Your task to perform on an android device: set the timer Image 0: 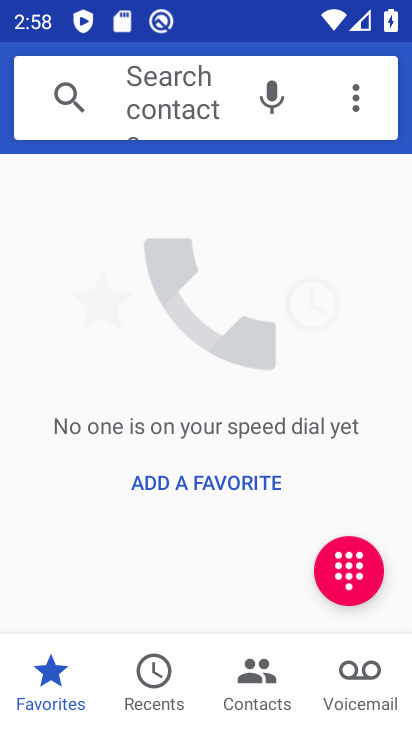
Step 0: press home button
Your task to perform on an android device: set the timer Image 1: 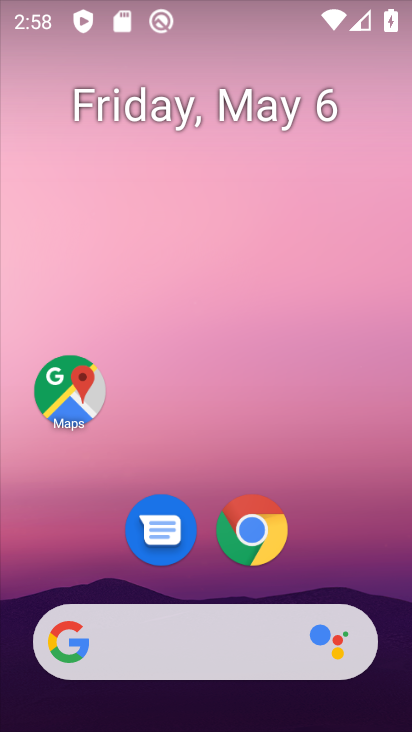
Step 1: drag from (210, 578) to (251, 141)
Your task to perform on an android device: set the timer Image 2: 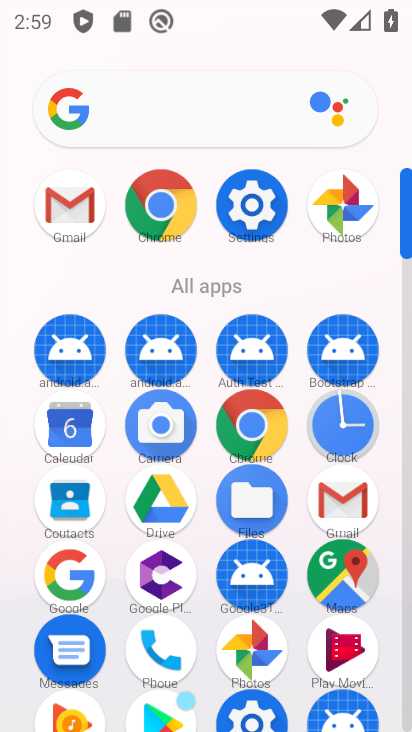
Step 2: drag from (209, 495) to (226, 225)
Your task to perform on an android device: set the timer Image 3: 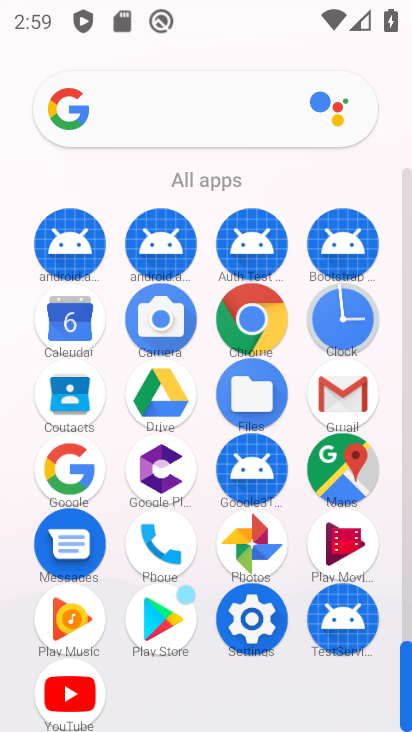
Step 3: click (355, 342)
Your task to perform on an android device: set the timer Image 4: 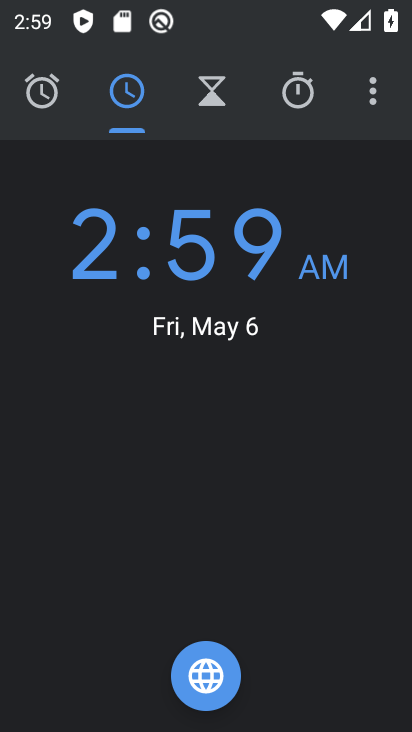
Step 4: click (221, 95)
Your task to perform on an android device: set the timer Image 5: 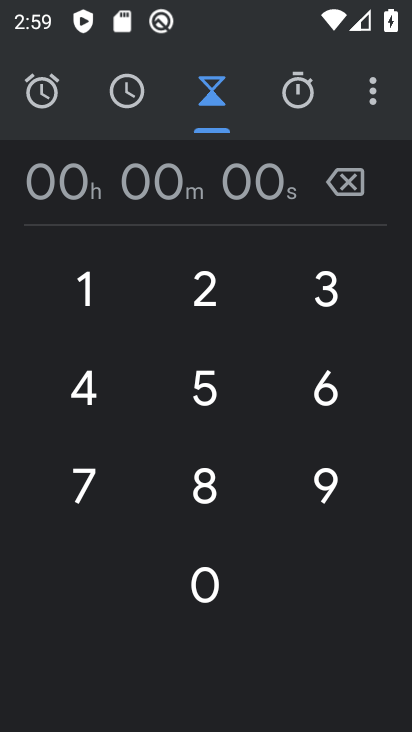
Step 5: click (196, 290)
Your task to perform on an android device: set the timer Image 6: 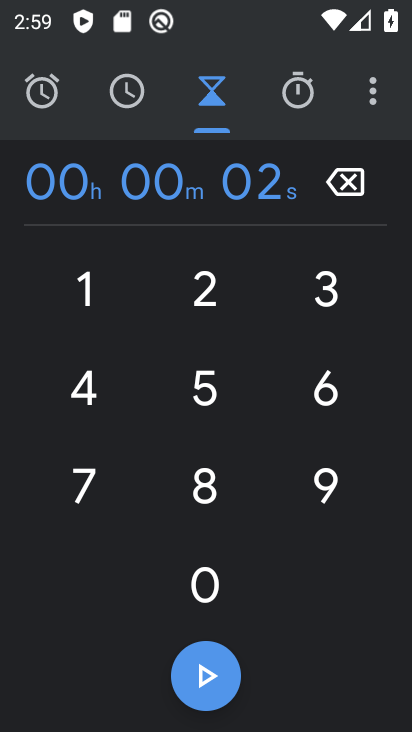
Step 6: click (193, 688)
Your task to perform on an android device: set the timer Image 7: 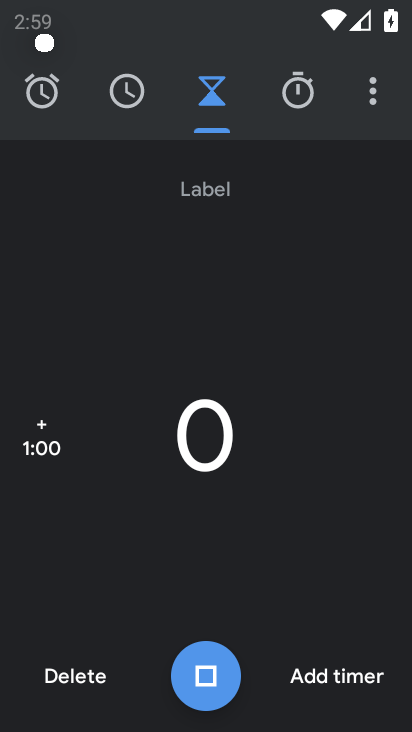
Step 7: task complete